Your task to perform on an android device: Open Maps and search for coffee Image 0: 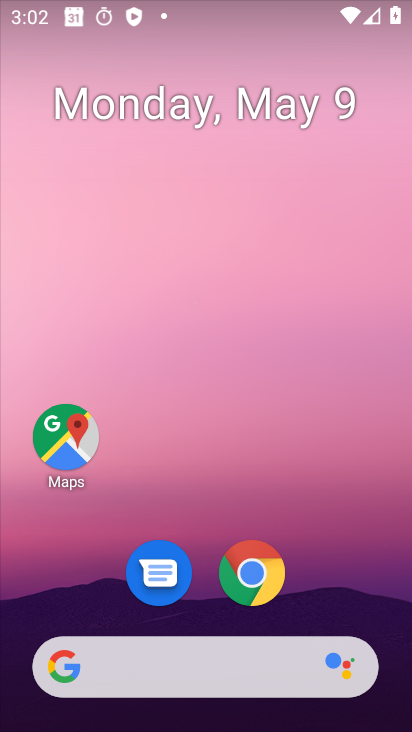
Step 0: drag from (293, 251) to (266, 151)
Your task to perform on an android device: Open Maps and search for coffee Image 1: 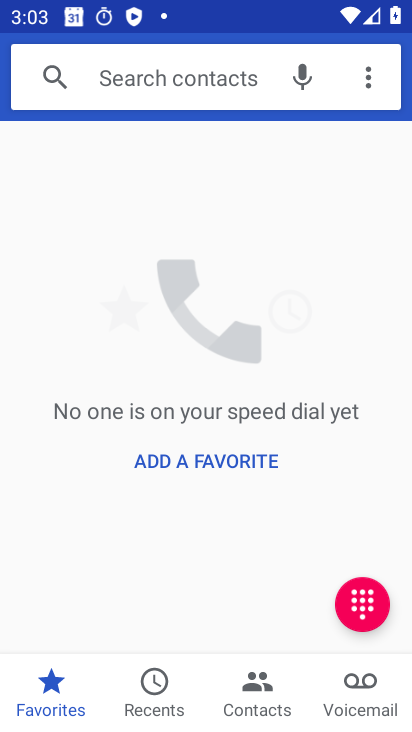
Step 1: press home button
Your task to perform on an android device: Open Maps and search for coffee Image 2: 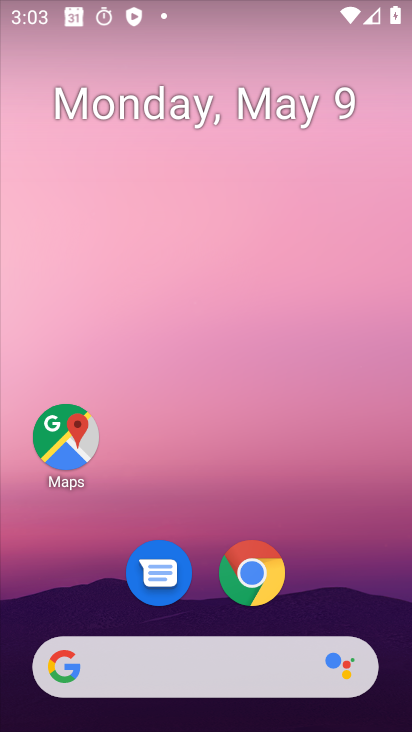
Step 2: click (58, 445)
Your task to perform on an android device: Open Maps and search for coffee Image 3: 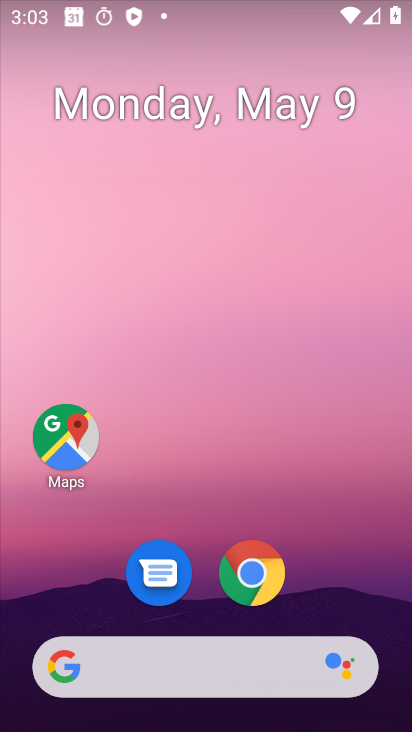
Step 3: click (59, 443)
Your task to perform on an android device: Open Maps and search for coffee Image 4: 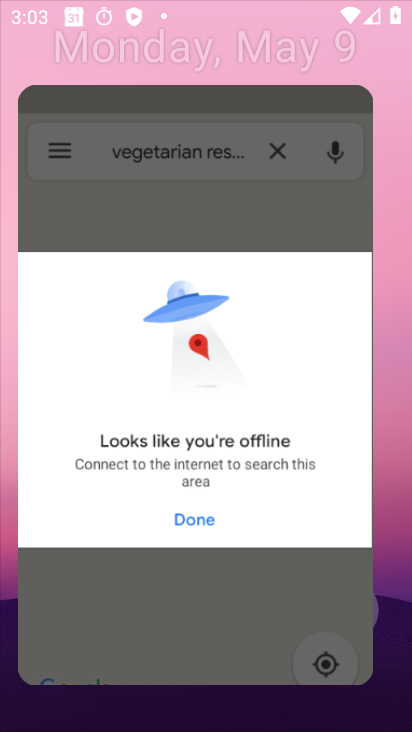
Step 4: click (60, 442)
Your task to perform on an android device: Open Maps and search for coffee Image 5: 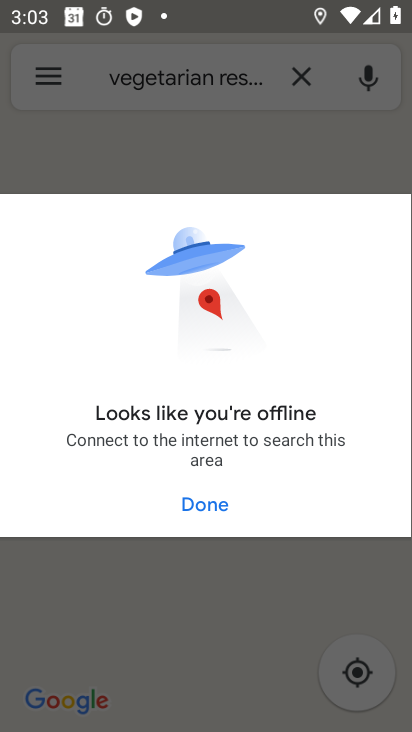
Step 5: task complete